Your task to perform on an android device: See recent photos Image 0: 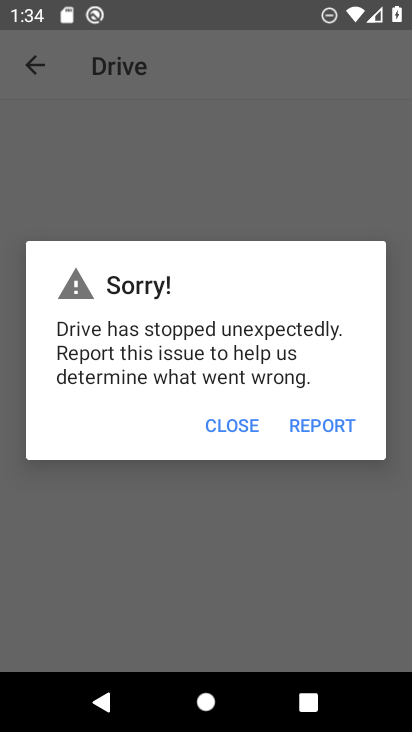
Step 0: press home button
Your task to perform on an android device: See recent photos Image 1: 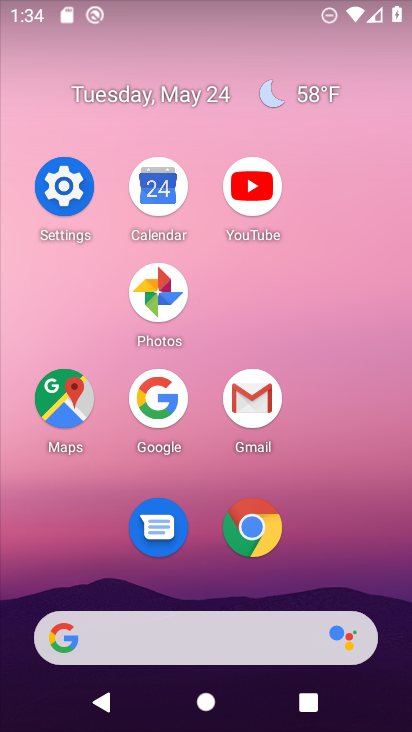
Step 1: click (155, 272)
Your task to perform on an android device: See recent photos Image 2: 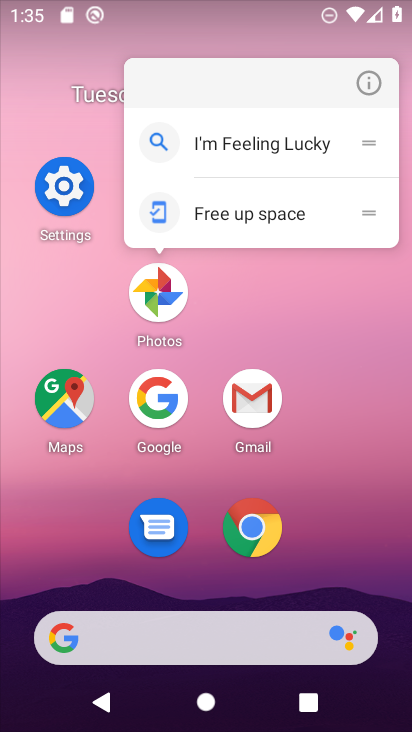
Step 2: click (157, 280)
Your task to perform on an android device: See recent photos Image 3: 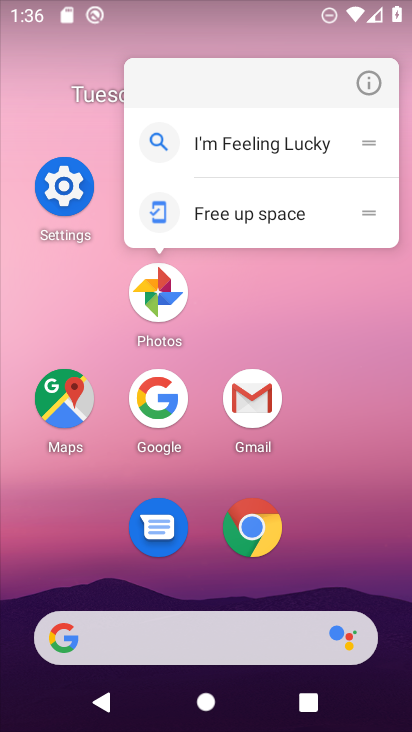
Step 3: click (171, 308)
Your task to perform on an android device: See recent photos Image 4: 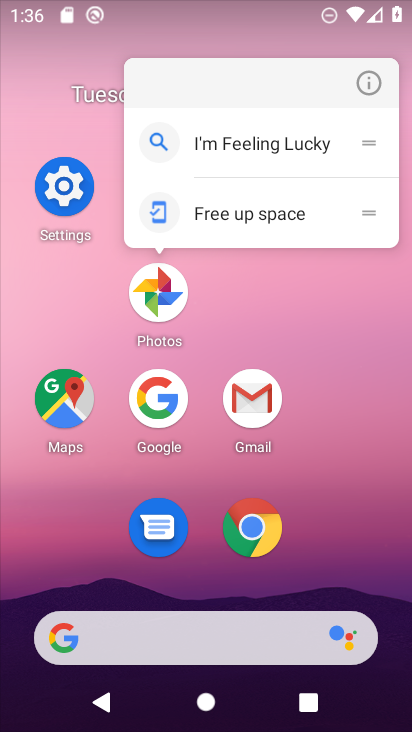
Step 4: click (162, 294)
Your task to perform on an android device: See recent photos Image 5: 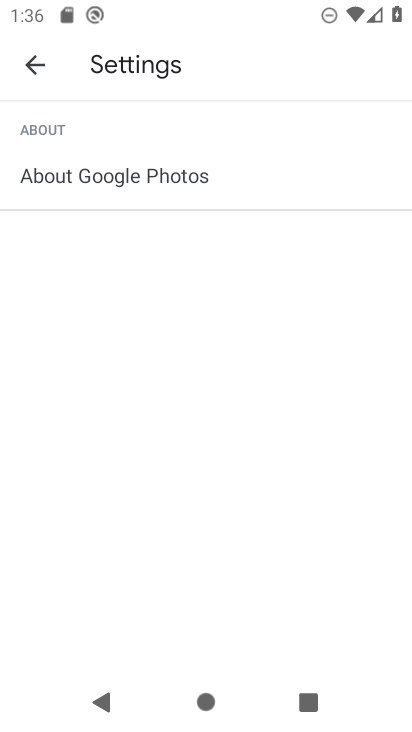
Step 5: click (34, 61)
Your task to perform on an android device: See recent photos Image 6: 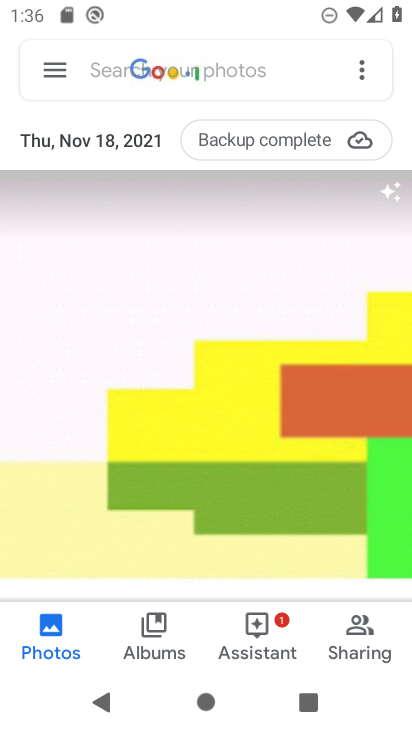
Step 6: task complete